Your task to perform on an android device: turn on priority inbox in the gmail app Image 0: 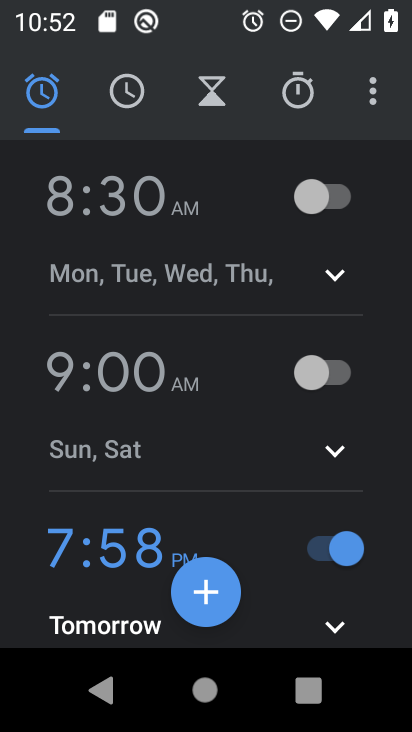
Step 0: press home button
Your task to perform on an android device: turn on priority inbox in the gmail app Image 1: 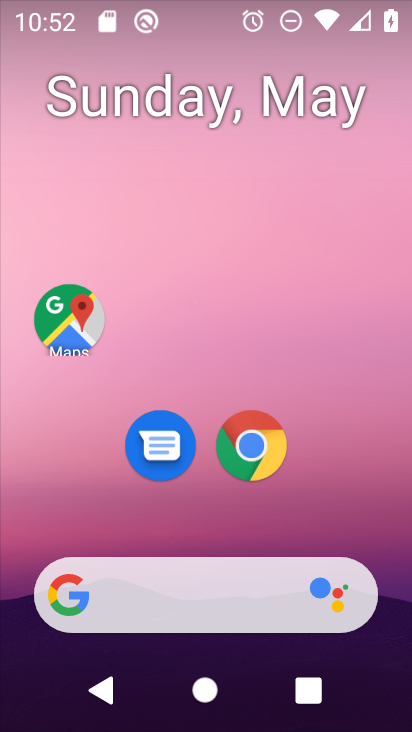
Step 1: drag from (210, 566) to (218, 110)
Your task to perform on an android device: turn on priority inbox in the gmail app Image 2: 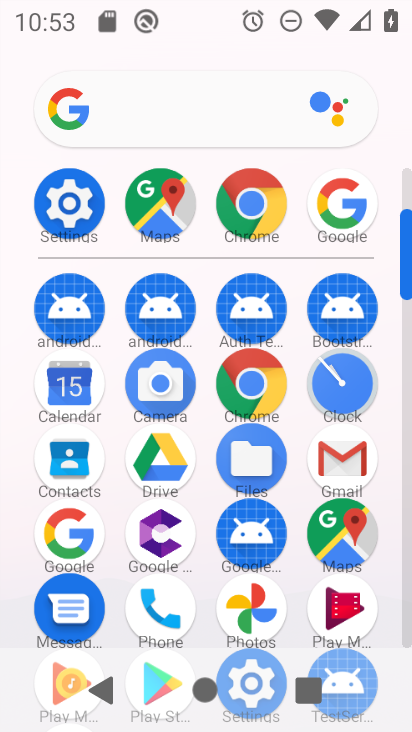
Step 2: click (366, 449)
Your task to perform on an android device: turn on priority inbox in the gmail app Image 3: 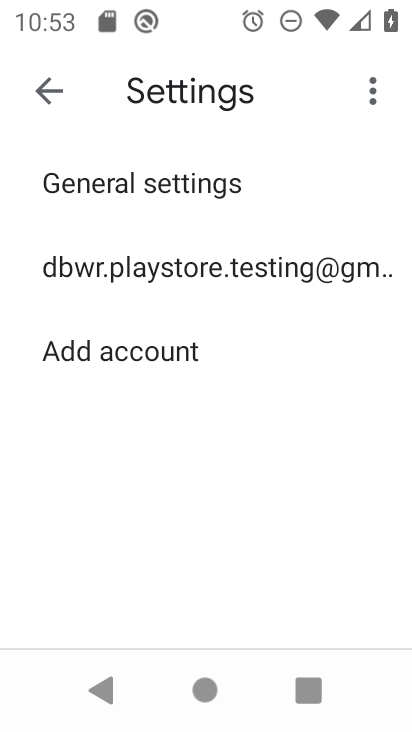
Step 3: click (186, 275)
Your task to perform on an android device: turn on priority inbox in the gmail app Image 4: 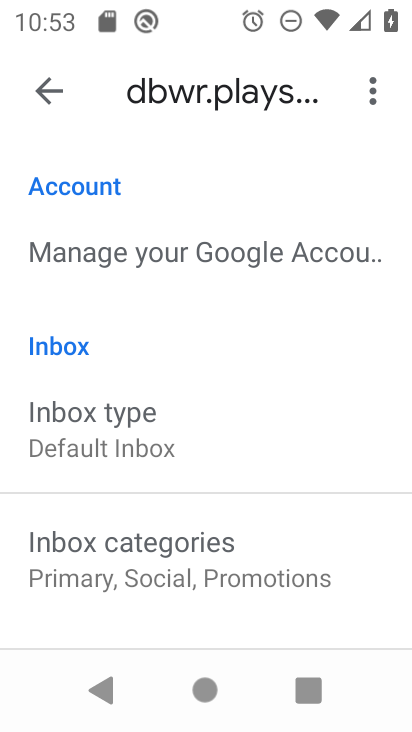
Step 4: click (41, 433)
Your task to perform on an android device: turn on priority inbox in the gmail app Image 5: 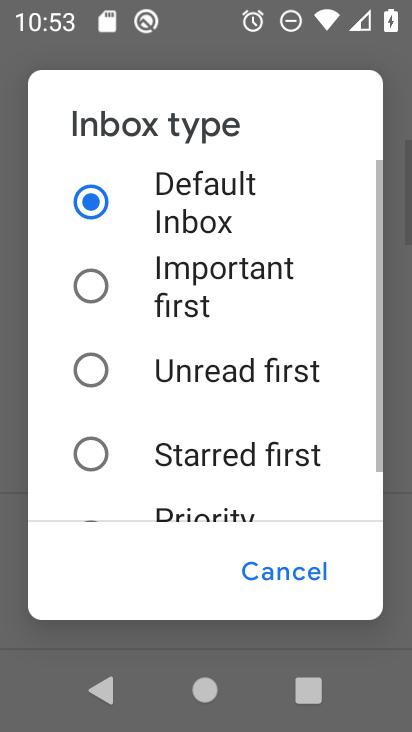
Step 5: drag from (136, 375) to (136, 5)
Your task to perform on an android device: turn on priority inbox in the gmail app Image 6: 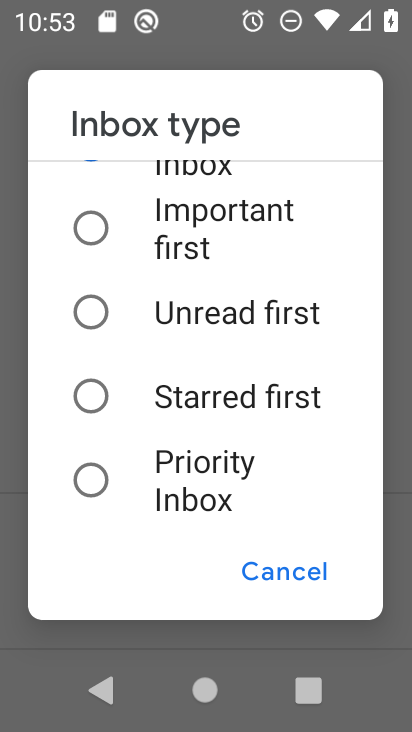
Step 6: click (98, 486)
Your task to perform on an android device: turn on priority inbox in the gmail app Image 7: 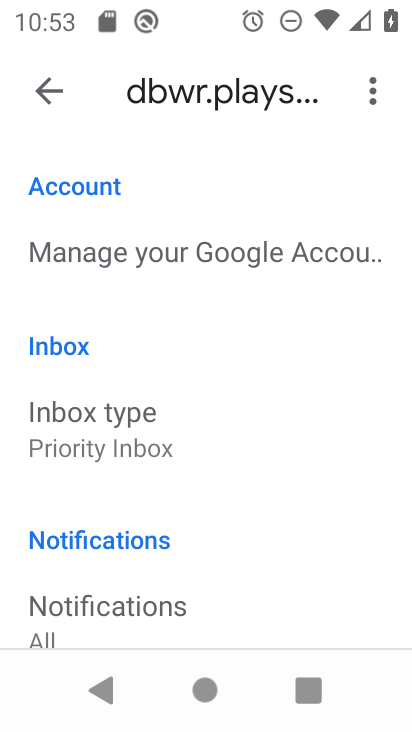
Step 7: task complete